Your task to perform on an android device: change text size in settings app Image 0: 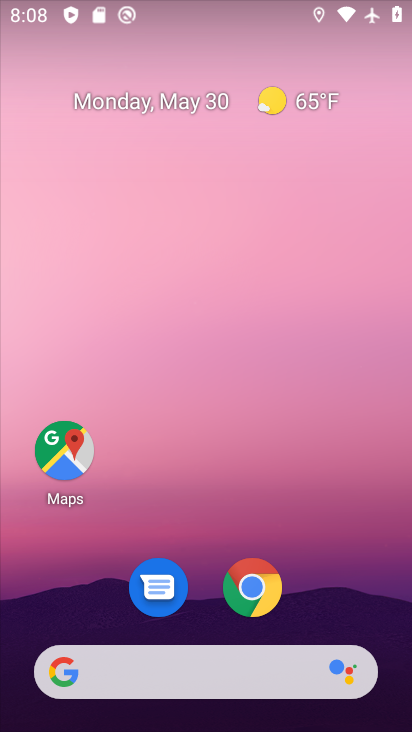
Step 0: press home button
Your task to perform on an android device: change text size in settings app Image 1: 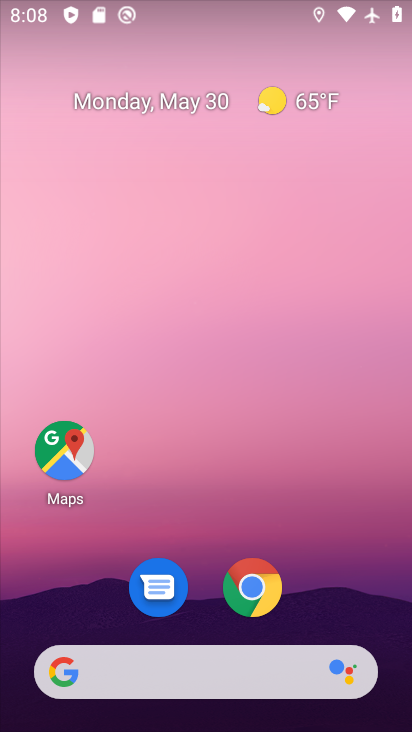
Step 1: drag from (203, 683) to (339, 146)
Your task to perform on an android device: change text size in settings app Image 2: 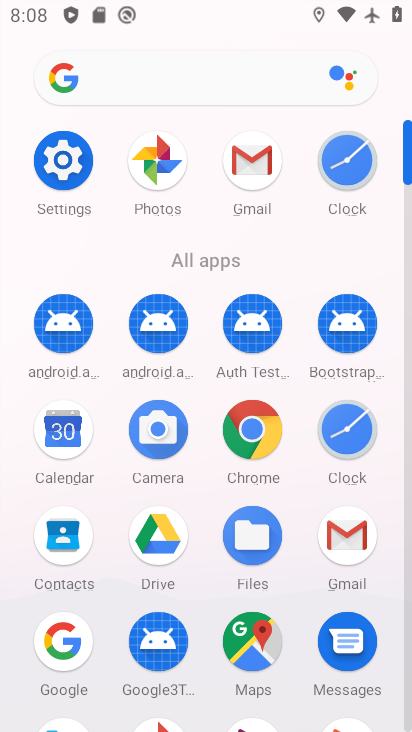
Step 2: click (69, 163)
Your task to perform on an android device: change text size in settings app Image 3: 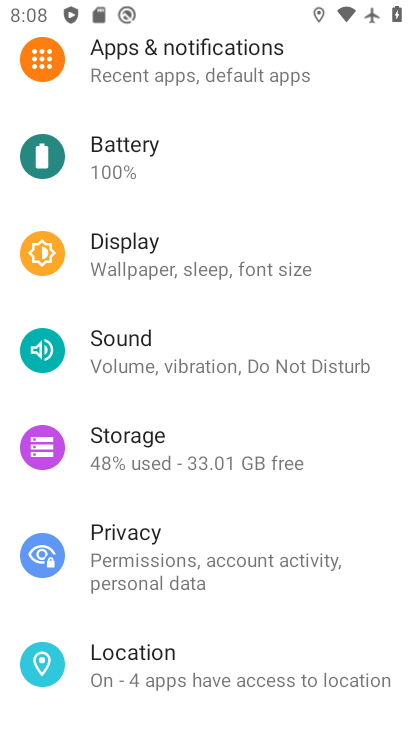
Step 3: click (239, 266)
Your task to perform on an android device: change text size in settings app Image 4: 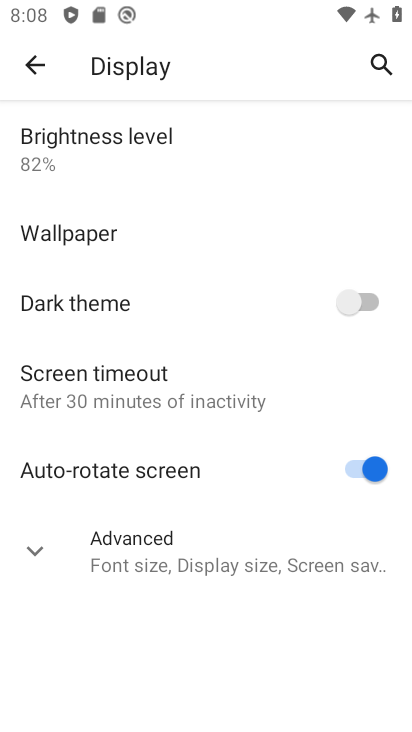
Step 4: click (141, 559)
Your task to perform on an android device: change text size in settings app Image 5: 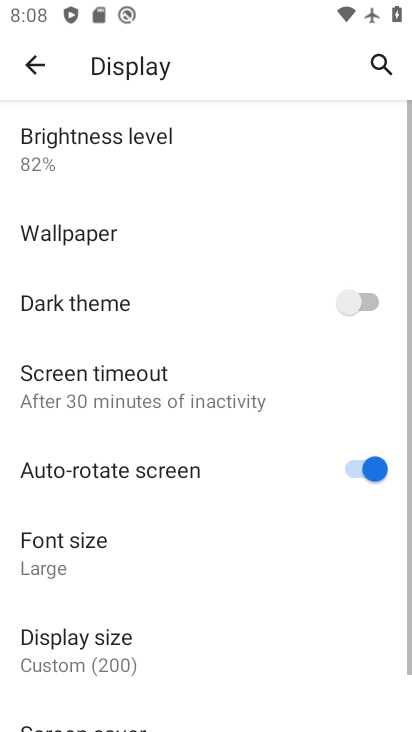
Step 5: click (74, 543)
Your task to perform on an android device: change text size in settings app Image 6: 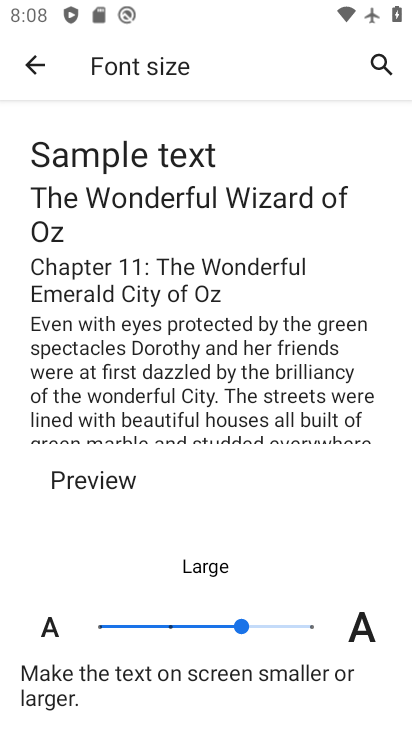
Step 6: click (170, 630)
Your task to perform on an android device: change text size in settings app Image 7: 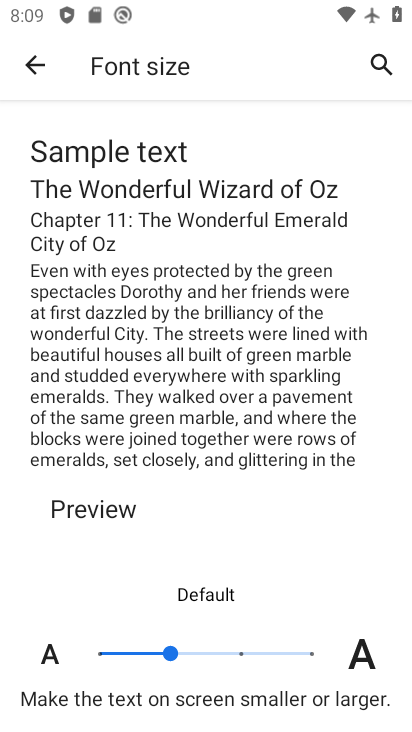
Step 7: task complete